Your task to perform on an android device: delete the emails in spam in the gmail app Image 0: 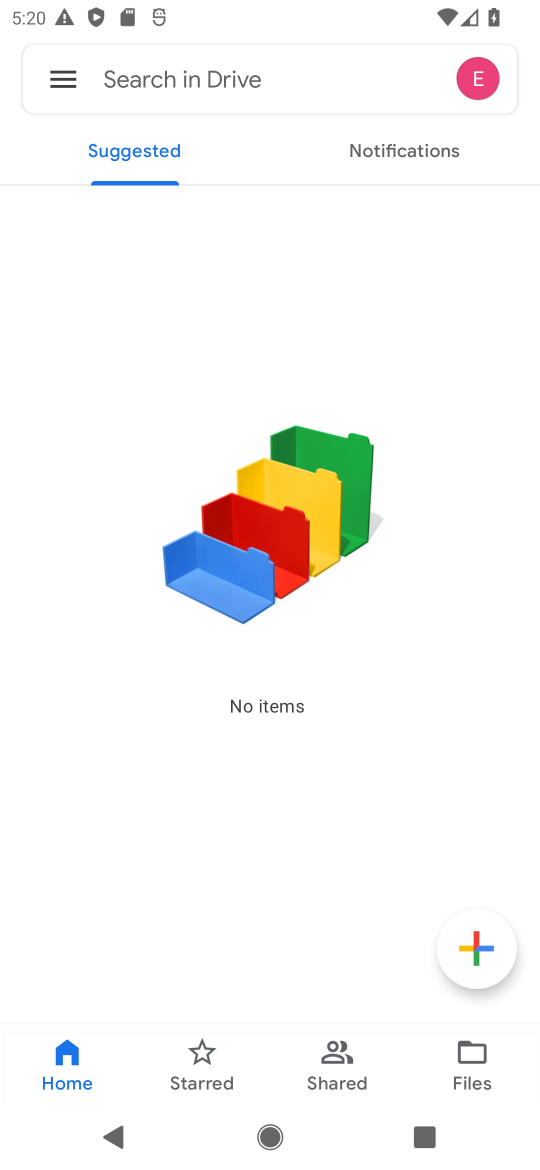
Step 0: press home button
Your task to perform on an android device: delete the emails in spam in the gmail app Image 1: 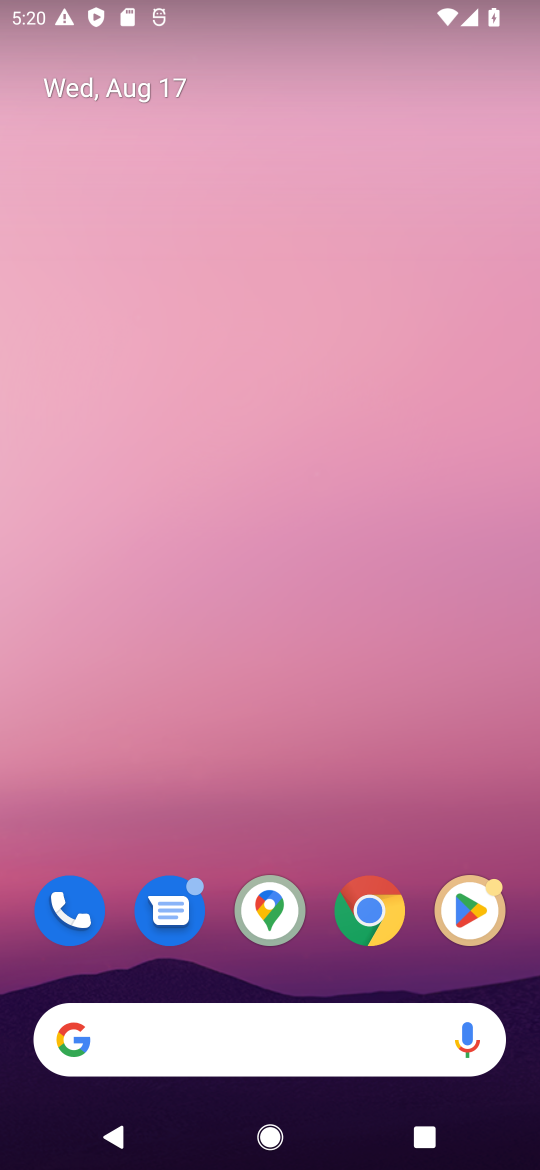
Step 1: drag from (171, 844) to (135, 162)
Your task to perform on an android device: delete the emails in spam in the gmail app Image 2: 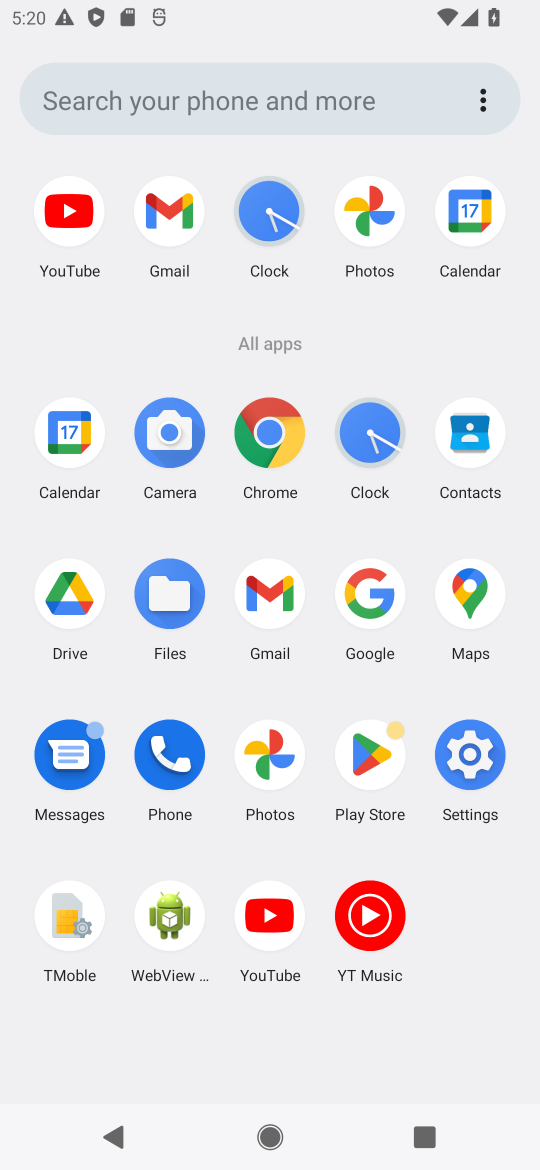
Step 2: click (268, 602)
Your task to perform on an android device: delete the emails in spam in the gmail app Image 3: 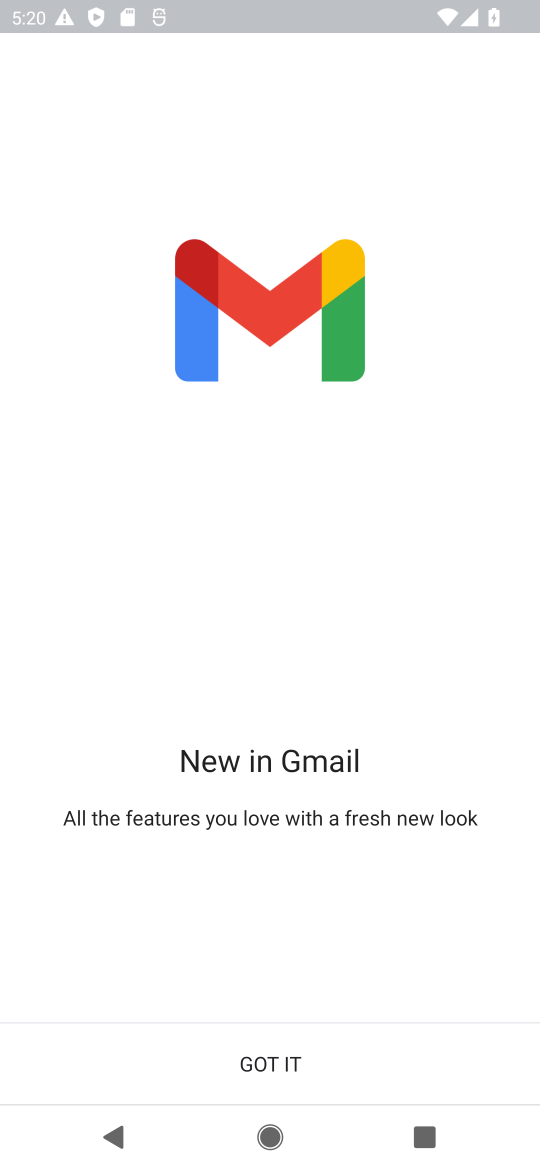
Step 3: click (233, 1056)
Your task to perform on an android device: delete the emails in spam in the gmail app Image 4: 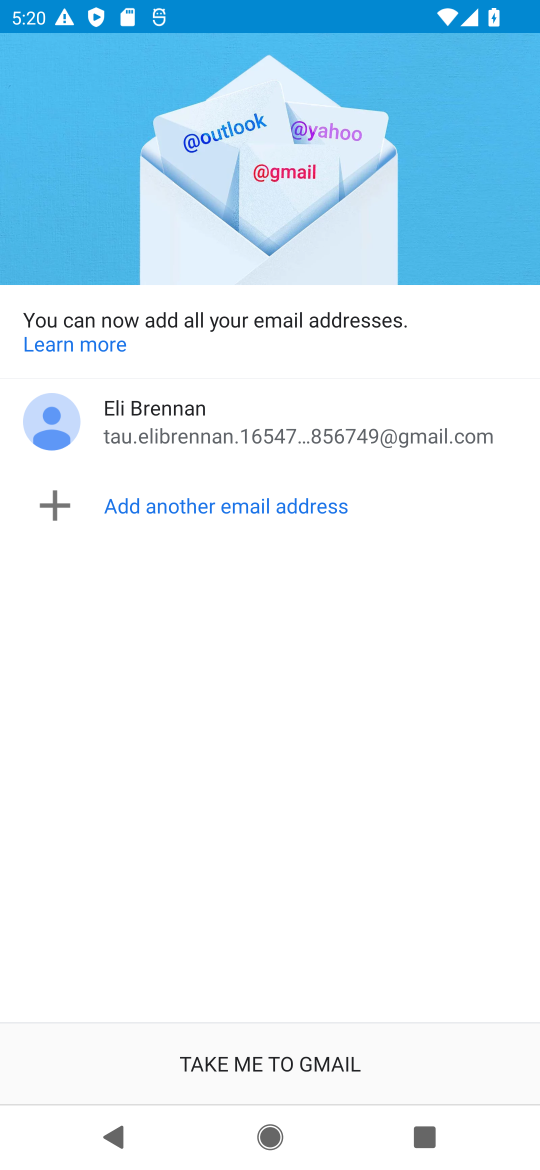
Step 4: click (290, 1058)
Your task to perform on an android device: delete the emails in spam in the gmail app Image 5: 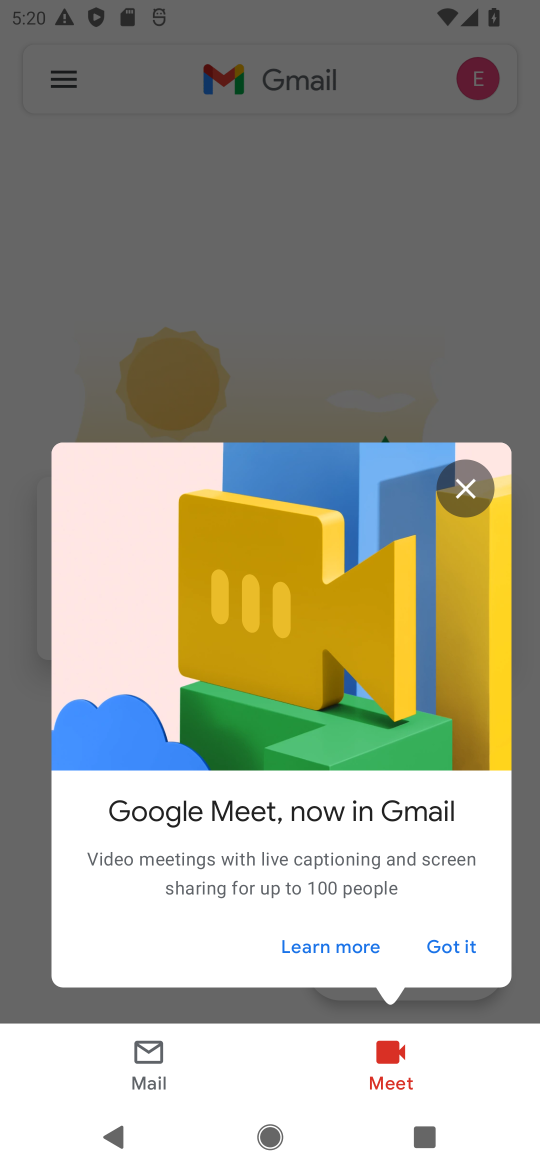
Step 5: click (467, 488)
Your task to perform on an android device: delete the emails in spam in the gmail app Image 6: 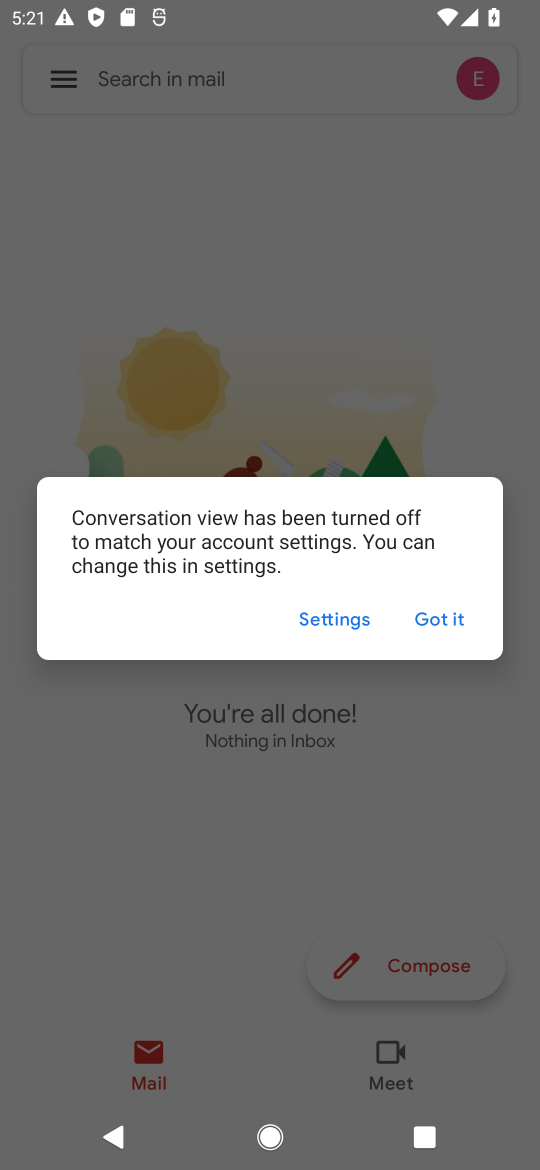
Step 6: click (431, 604)
Your task to perform on an android device: delete the emails in spam in the gmail app Image 7: 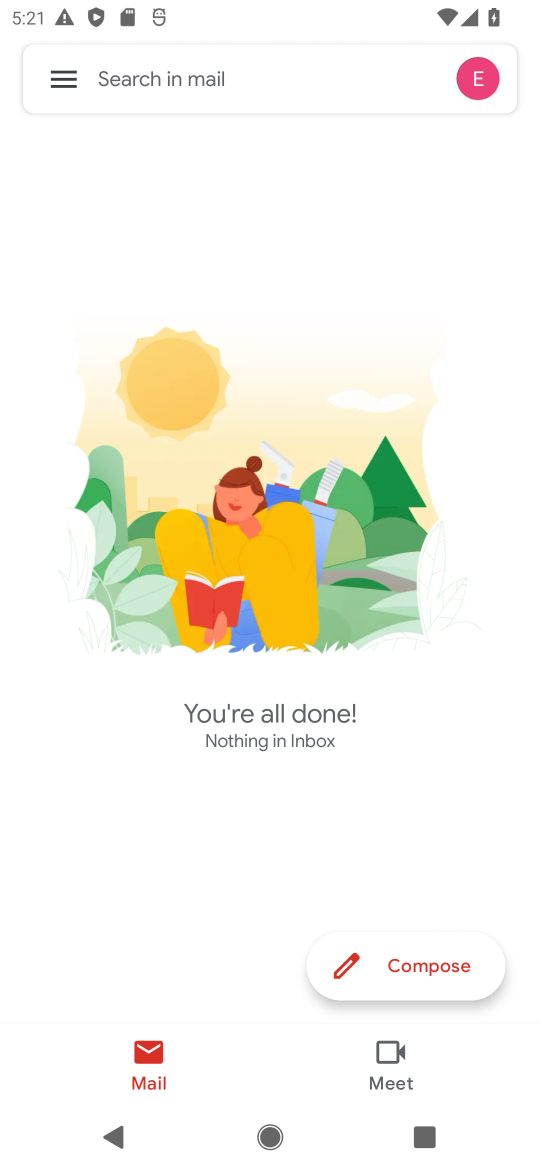
Step 7: task complete